Your task to perform on an android device: What's the weather going to be this weekend? Image 0: 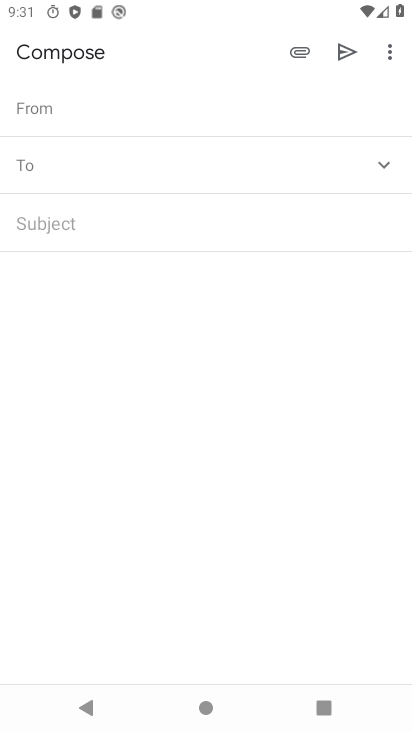
Step 0: click (254, 515)
Your task to perform on an android device: What's the weather going to be this weekend? Image 1: 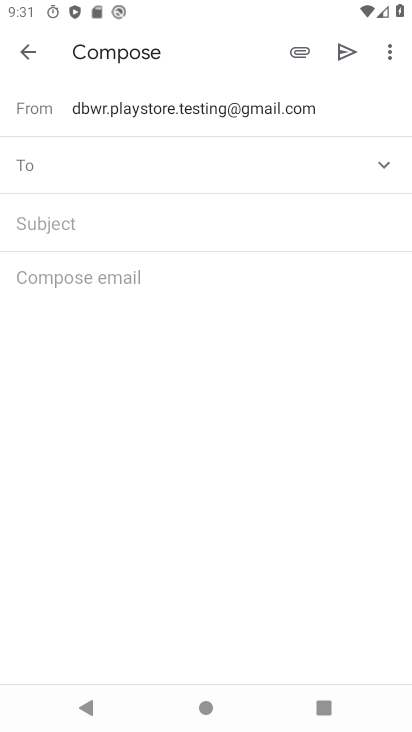
Step 1: press home button
Your task to perform on an android device: What's the weather going to be this weekend? Image 2: 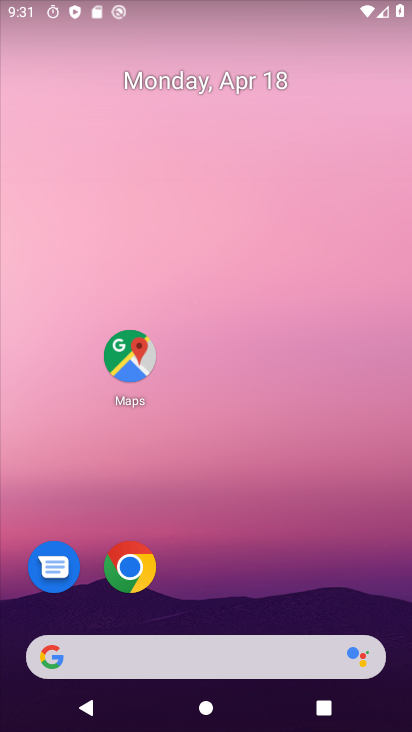
Step 2: drag from (279, 656) to (293, 395)
Your task to perform on an android device: What's the weather going to be this weekend? Image 3: 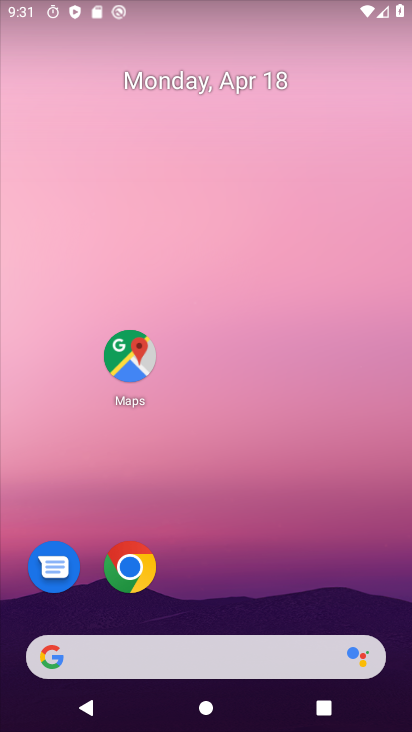
Step 3: drag from (241, 683) to (337, 289)
Your task to perform on an android device: What's the weather going to be this weekend? Image 4: 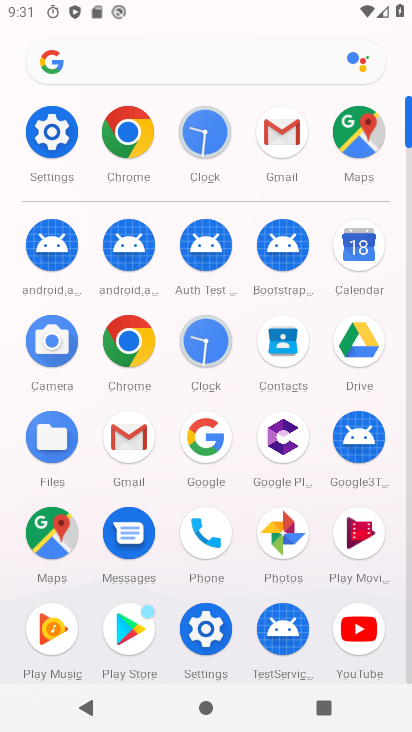
Step 4: click (358, 262)
Your task to perform on an android device: What's the weather going to be this weekend? Image 5: 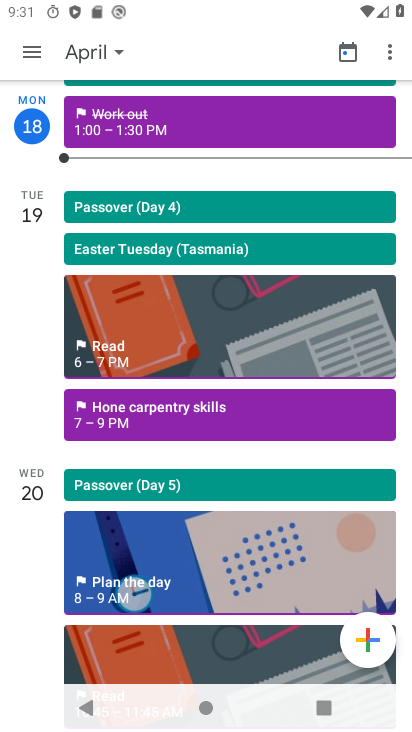
Step 5: click (27, 57)
Your task to perform on an android device: What's the weather going to be this weekend? Image 6: 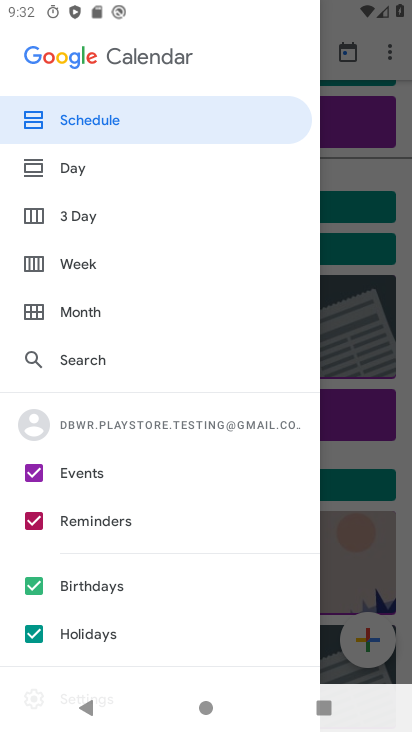
Step 6: click (99, 267)
Your task to perform on an android device: What's the weather going to be this weekend? Image 7: 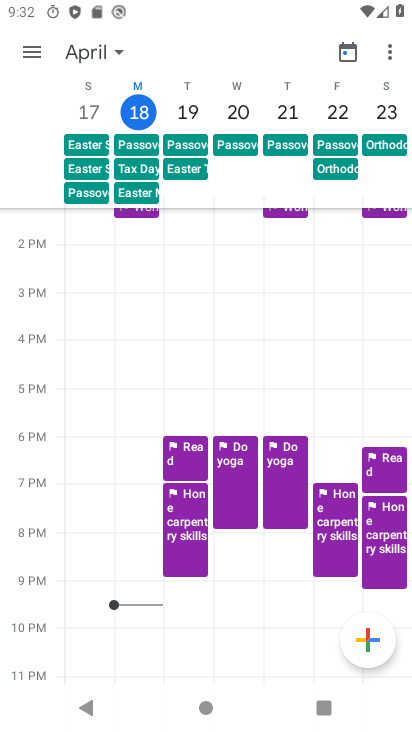
Step 7: task complete